Your task to perform on an android device: change keyboard looks Image 0: 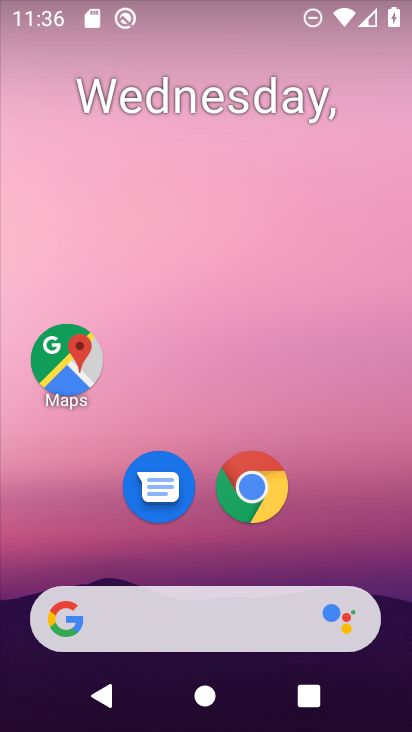
Step 0: drag from (341, 512) to (251, 66)
Your task to perform on an android device: change keyboard looks Image 1: 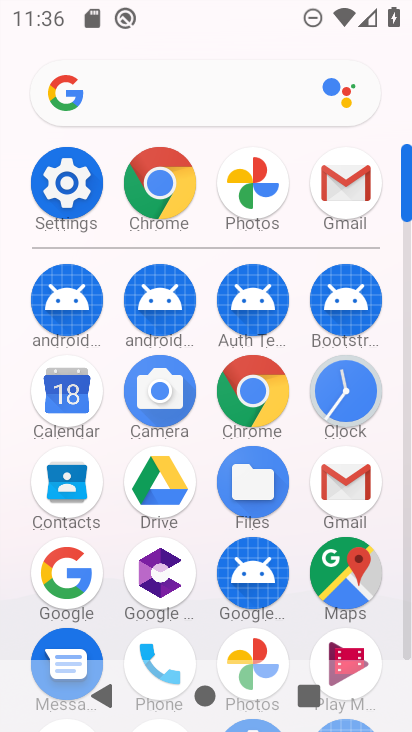
Step 1: click (73, 175)
Your task to perform on an android device: change keyboard looks Image 2: 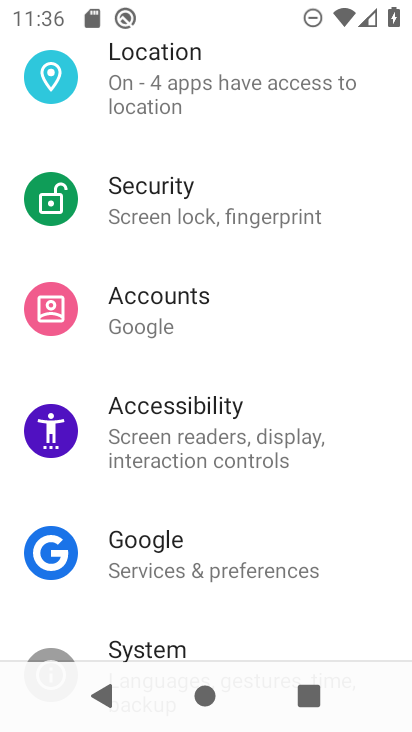
Step 2: drag from (282, 515) to (247, 118)
Your task to perform on an android device: change keyboard looks Image 3: 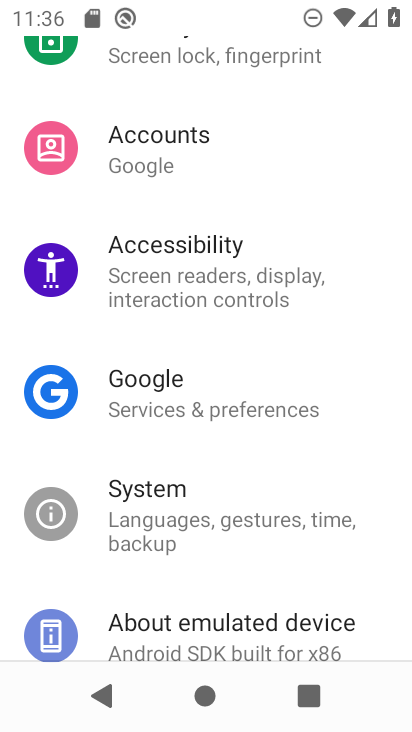
Step 3: drag from (239, 578) to (268, 199)
Your task to perform on an android device: change keyboard looks Image 4: 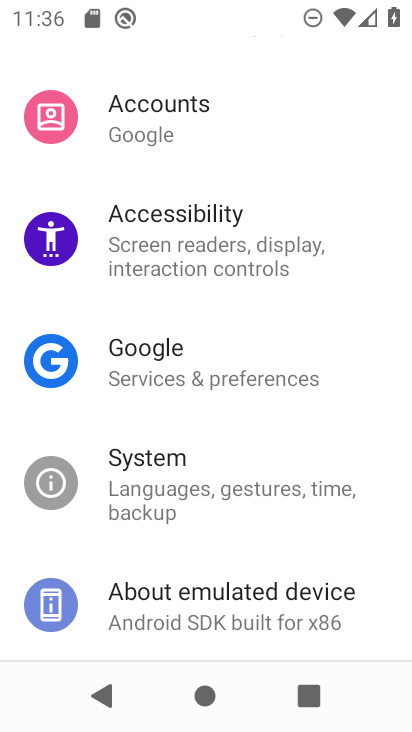
Step 4: click (154, 451)
Your task to perform on an android device: change keyboard looks Image 5: 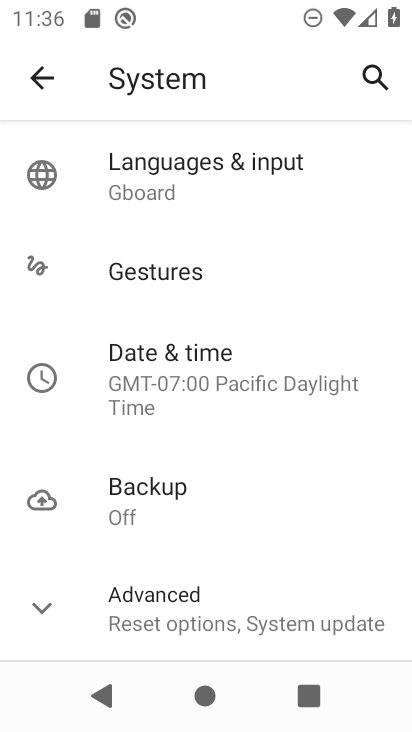
Step 5: click (146, 163)
Your task to perform on an android device: change keyboard looks Image 6: 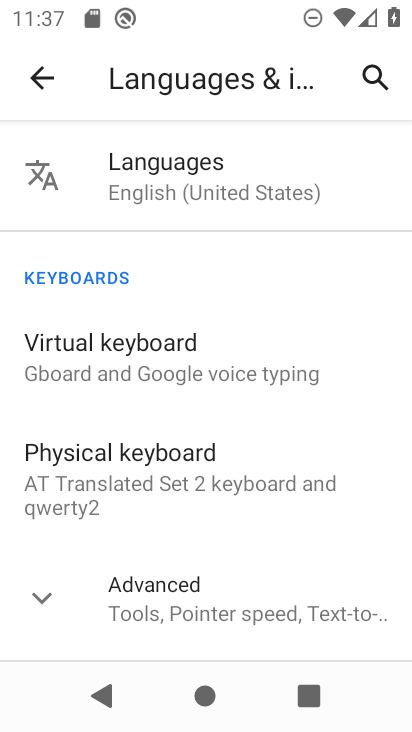
Step 6: click (107, 349)
Your task to perform on an android device: change keyboard looks Image 7: 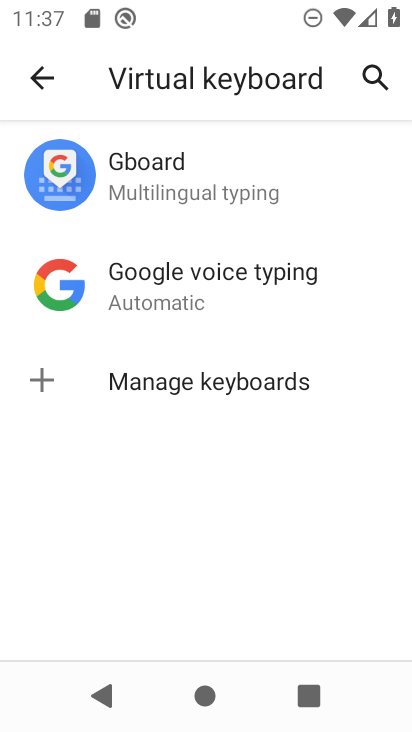
Step 7: click (52, 170)
Your task to perform on an android device: change keyboard looks Image 8: 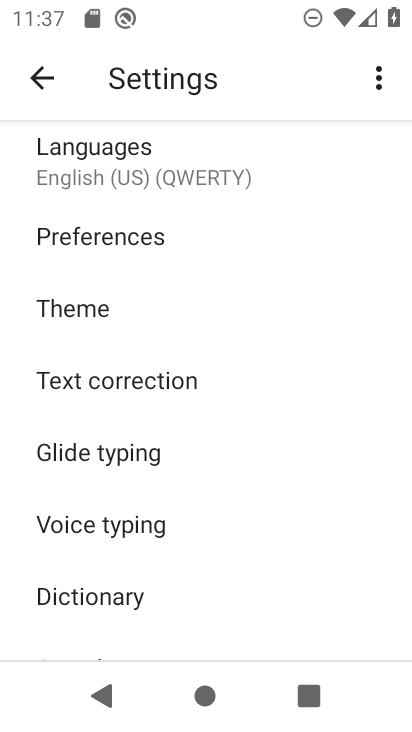
Step 8: click (73, 314)
Your task to perform on an android device: change keyboard looks Image 9: 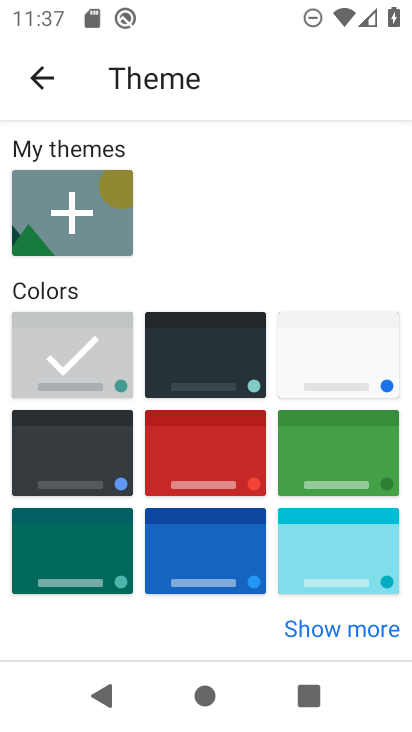
Step 9: click (206, 456)
Your task to perform on an android device: change keyboard looks Image 10: 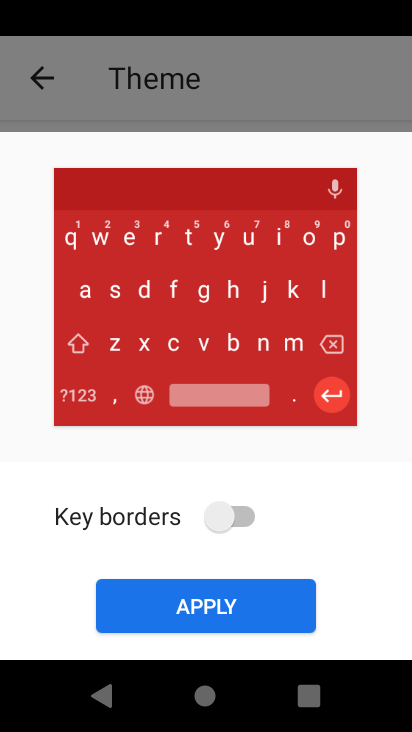
Step 10: click (217, 598)
Your task to perform on an android device: change keyboard looks Image 11: 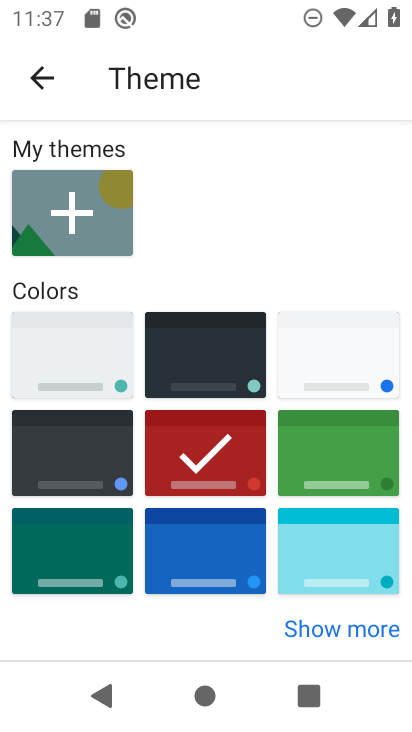
Step 11: task complete